Your task to perform on an android device: Open calendar and show me the first week of next month Image 0: 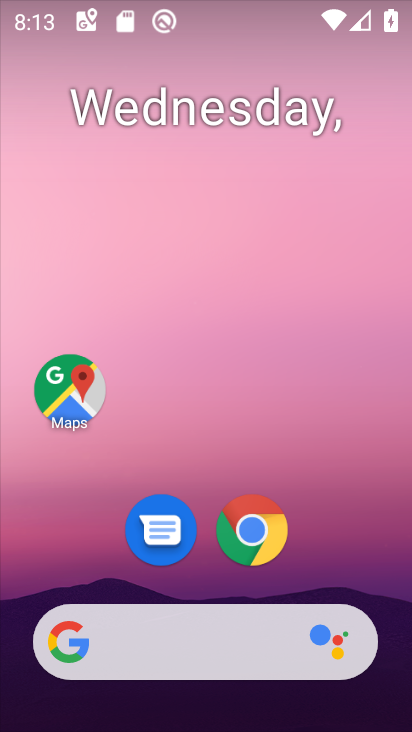
Step 0: drag from (403, 629) to (274, 56)
Your task to perform on an android device: Open calendar and show me the first week of next month Image 1: 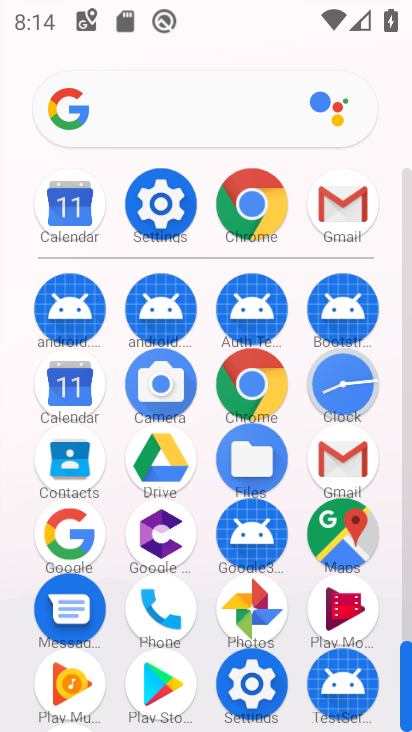
Step 1: click (63, 406)
Your task to perform on an android device: Open calendar and show me the first week of next month Image 2: 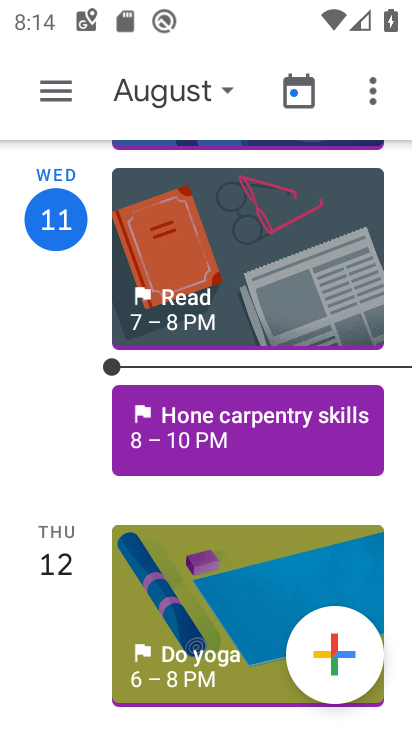
Step 2: click (136, 86)
Your task to perform on an android device: Open calendar and show me the first week of next month Image 3: 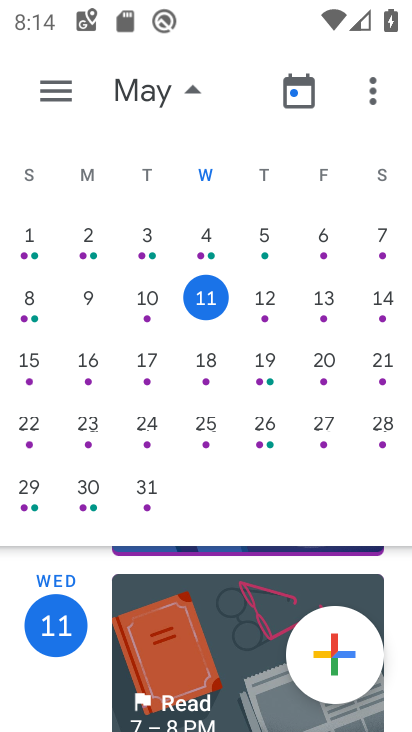
Step 3: drag from (366, 373) to (3, 339)
Your task to perform on an android device: Open calendar and show me the first week of next month Image 4: 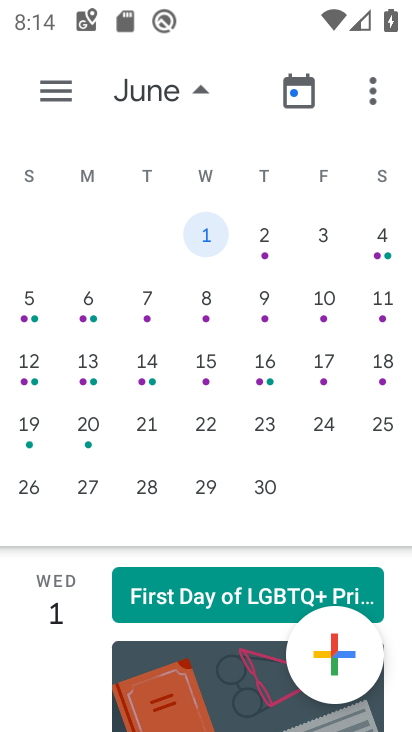
Step 4: click (22, 309)
Your task to perform on an android device: Open calendar and show me the first week of next month Image 5: 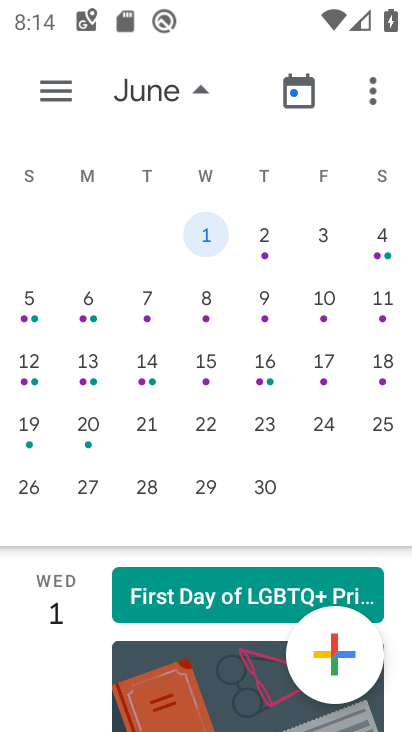
Step 5: click (29, 308)
Your task to perform on an android device: Open calendar and show me the first week of next month Image 6: 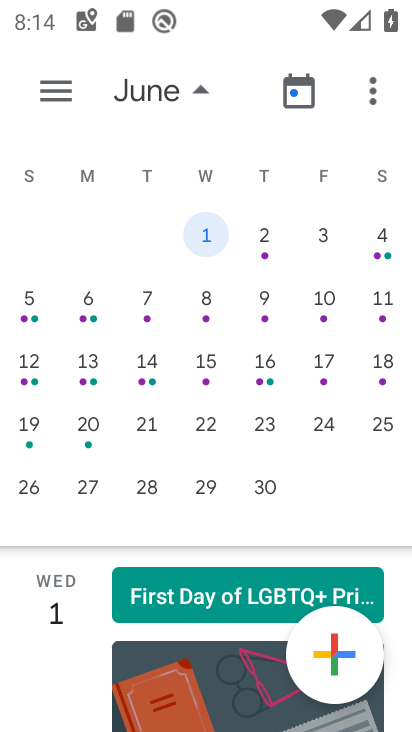
Step 6: click (29, 308)
Your task to perform on an android device: Open calendar and show me the first week of next month Image 7: 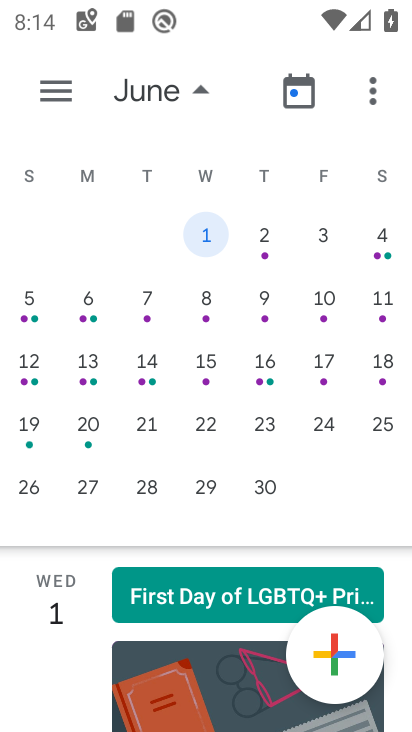
Step 7: click (89, 296)
Your task to perform on an android device: Open calendar and show me the first week of next month Image 8: 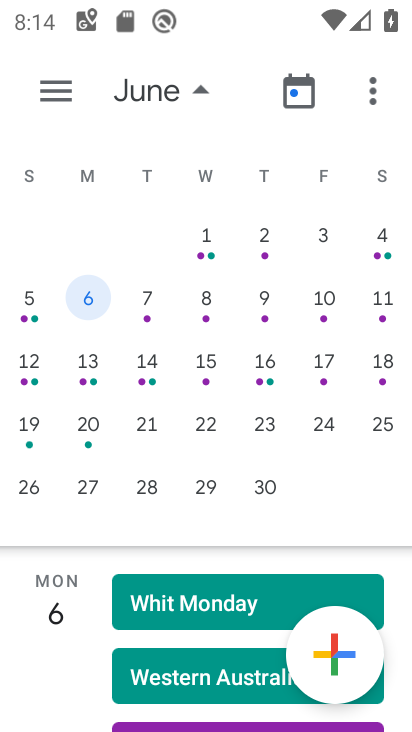
Step 8: task complete